Your task to perform on an android device: check android version Image 0: 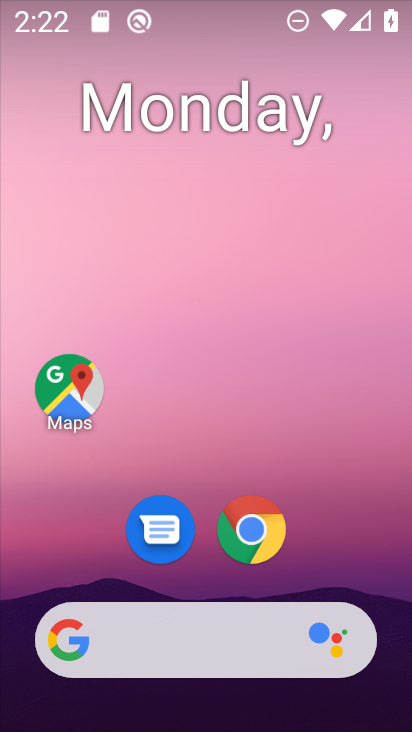
Step 0: drag from (115, 427) to (192, 43)
Your task to perform on an android device: check android version Image 1: 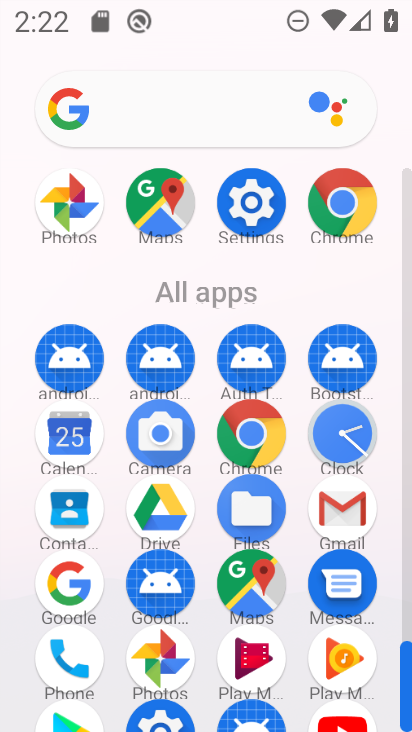
Step 1: drag from (202, 594) to (236, 363)
Your task to perform on an android device: check android version Image 2: 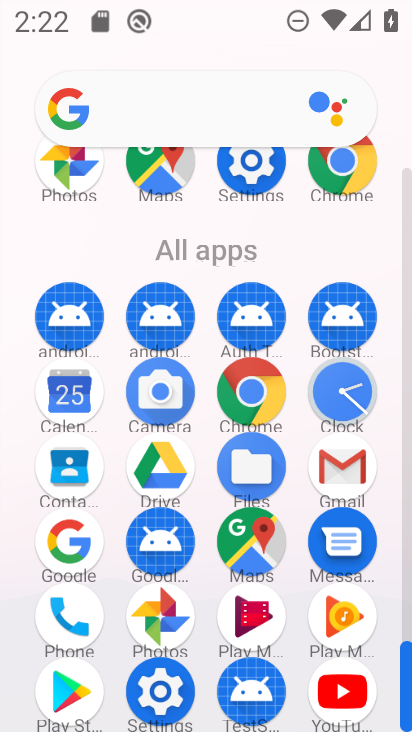
Step 2: click (159, 702)
Your task to perform on an android device: check android version Image 3: 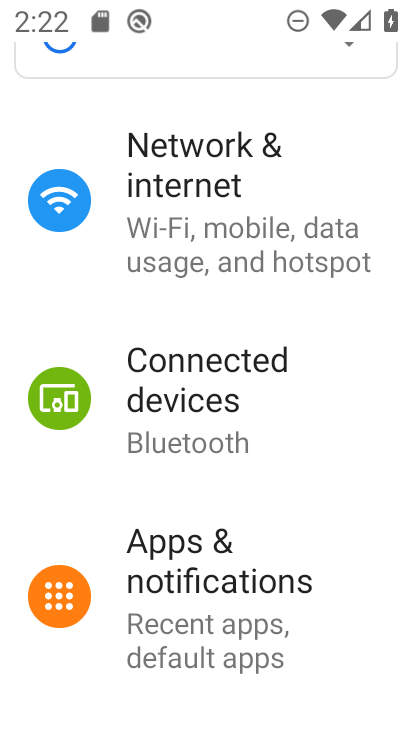
Step 3: drag from (220, 684) to (390, 84)
Your task to perform on an android device: check android version Image 4: 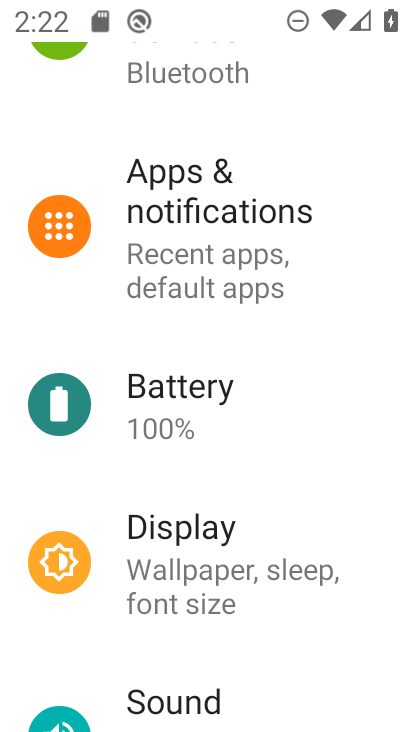
Step 4: drag from (150, 603) to (268, 78)
Your task to perform on an android device: check android version Image 5: 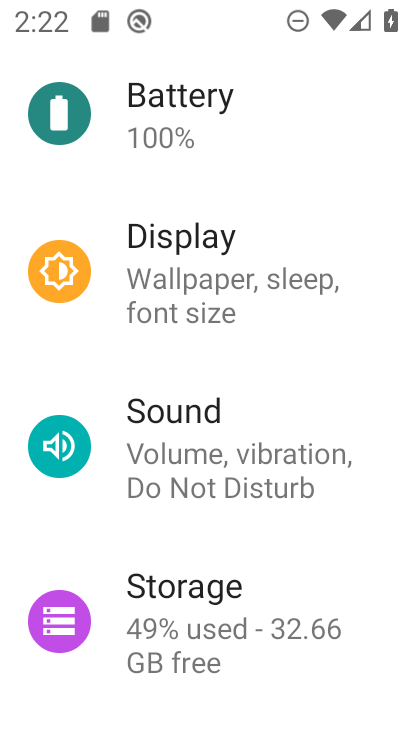
Step 5: drag from (185, 593) to (327, 97)
Your task to perform on an android device: check android version Image 6: 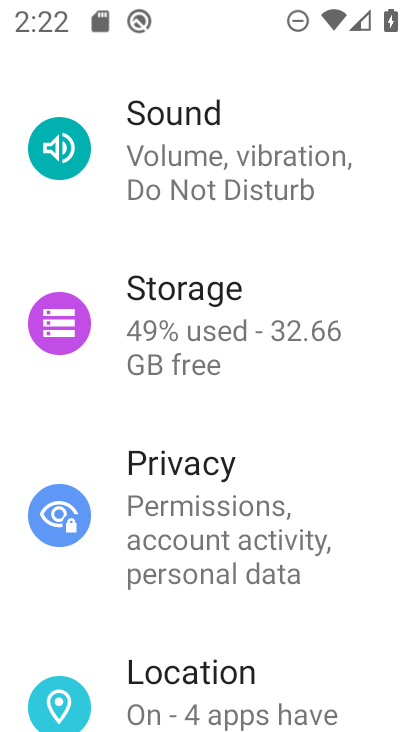
Step 6: drag from (193, 614) to (303, 150)
Your task to perform on an android device: check android version Image 7: 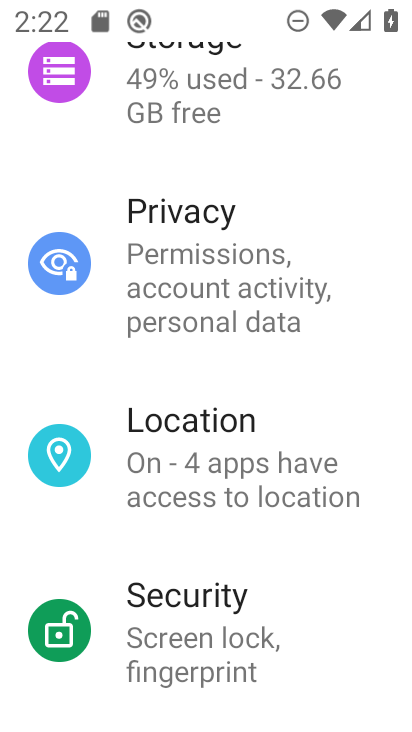
Step 7: drag from (181, 597) to (335, 27)
Your task to perform on an android device: check android version Image 8: 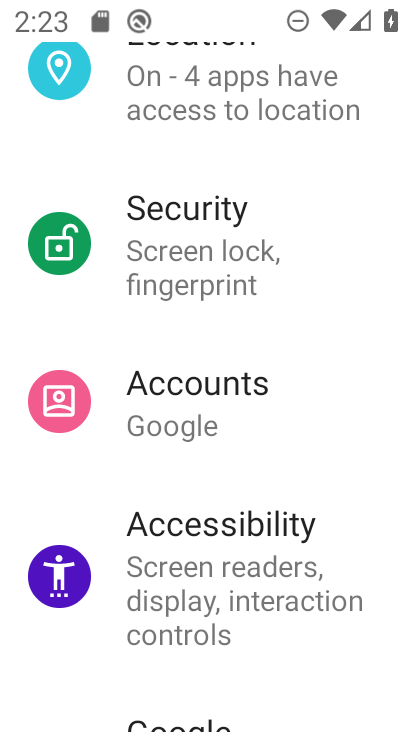
Step 8: drag from (198, 537) to (285, 197)
Your task to perform on an android device: check android version Image 9: 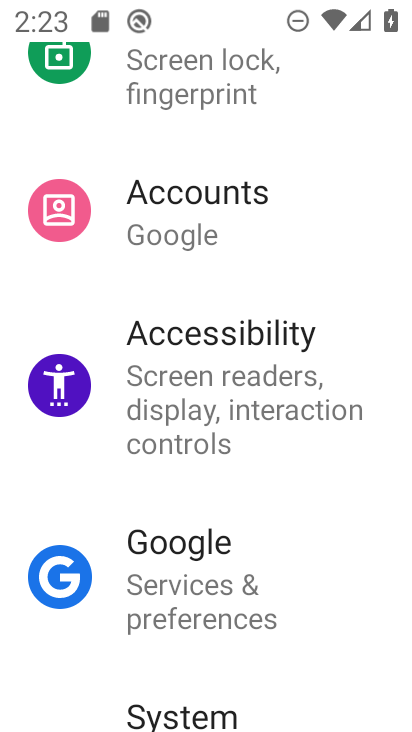
Step 9: drag from (164, 659) to (251, 149)
Your task to perform on an android device: check android version Image 10: 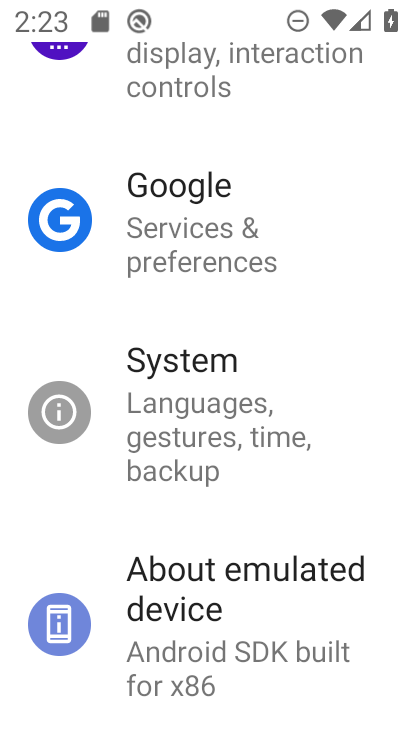
Step 10: click (193, 642)
Your task to perform on an android device: check android version Image 11: 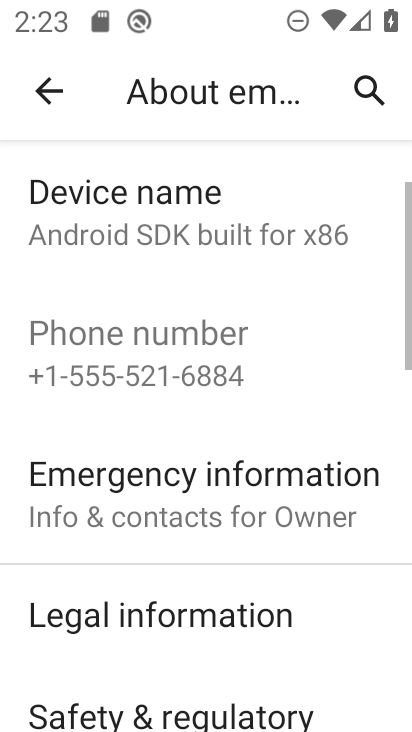
Step 11: drag from (167, 536) to (241, 193)
Your task to perform on an android device: check android version Image 12: 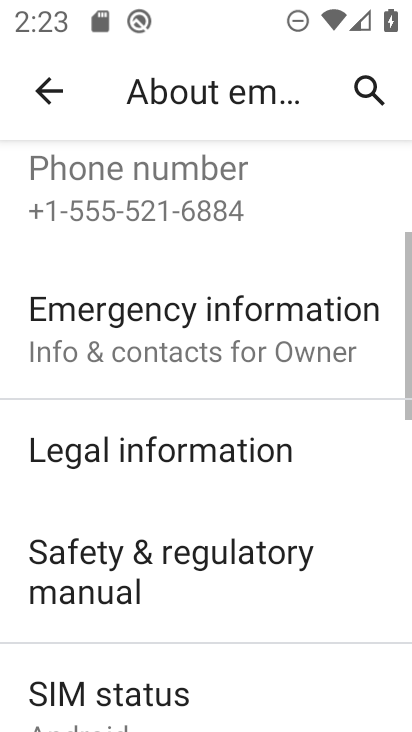
Step 12: drag from (208, 505) to (291, 156)
Your task to perform on an android device: check android version Image 13: 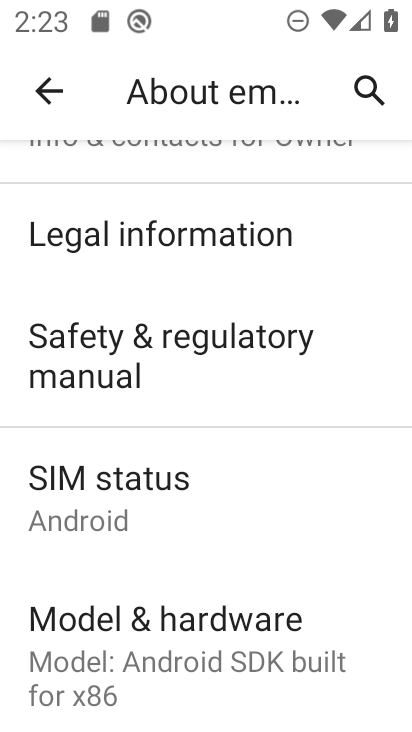
Step 13: drag from (155, 653) to (213, 184)
Your task to perform on an android device: check android version Image 14: 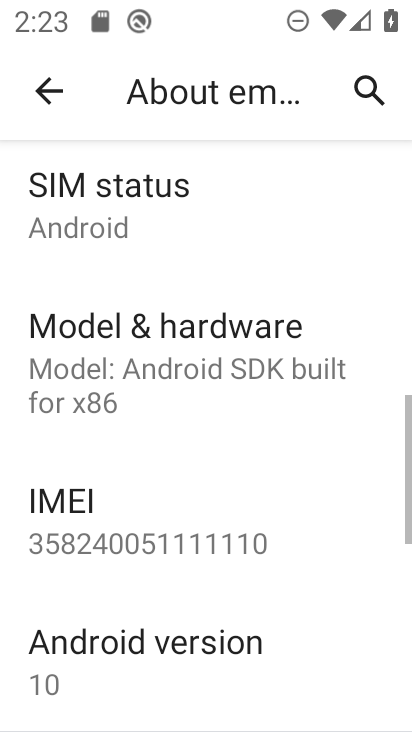
Step 14: click (135, 638)
Your task to perform on an android device: check android version Image 15: 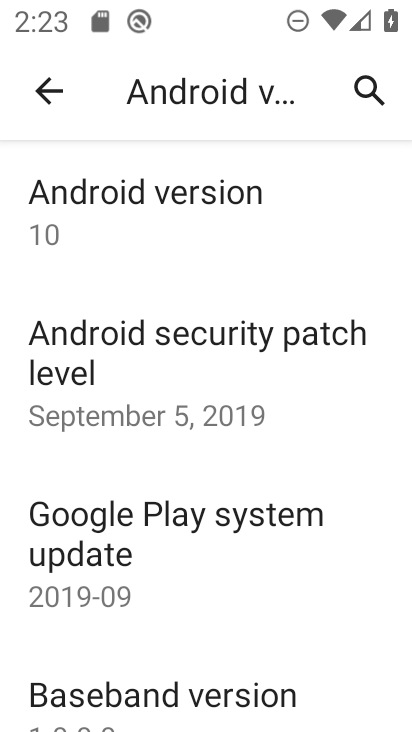
Step 15: task complete